Your task to perform on an android device: Go to battery settings Image 0: 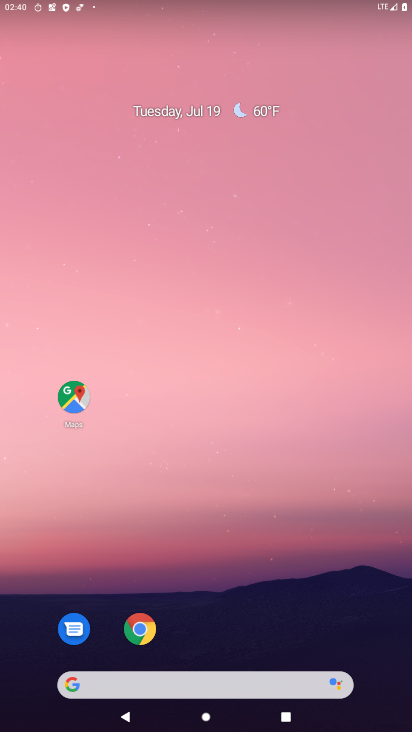
Step 0: drag from (203, 631) to (206, 141)
Your task to perform on an android device: Go to battery settings Image 1: 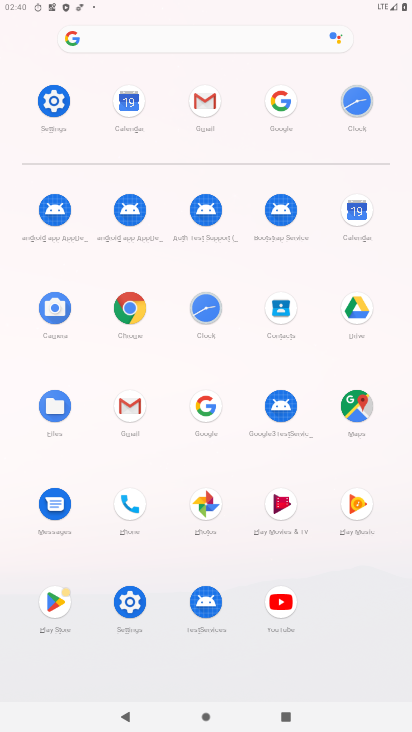
Step 1: click (65, 103)
Your task to perform on an android device: Go to battery settings Image 2: 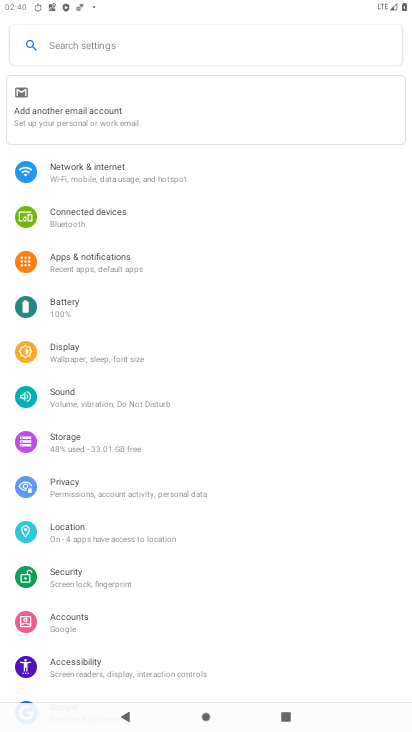
Step 2: click (103, 314)
Your task to perform on an android device: Go to battery settings Image 3: 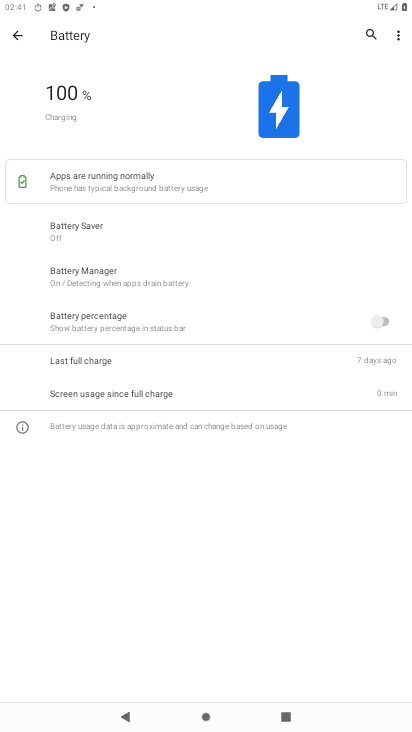
Step 3: task complete